Your task to perform on an android device: turn on notifications settings in the gmail app Image 0: 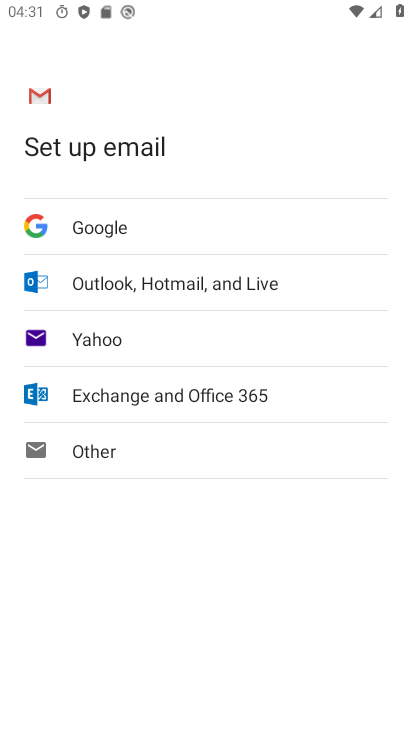
Step 0: press home button
Your task to perform on an android device: turn on notifications settings in the gmail app Image 1: 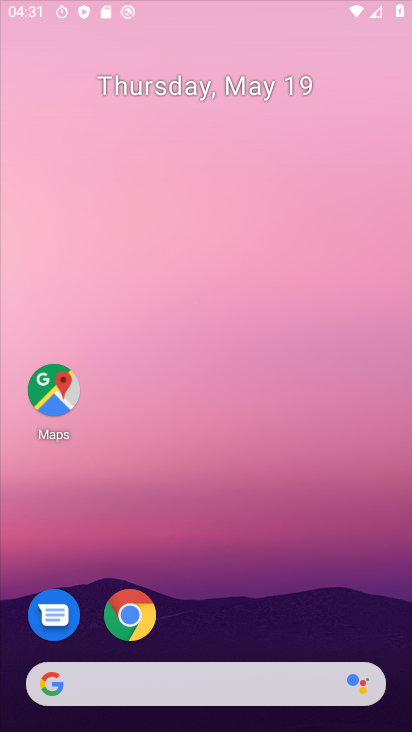
Step 1: drag from (286, 633) to (329, 6)
Your task to perform on an android device: turn on notifications settings in the gmail app Image 2: 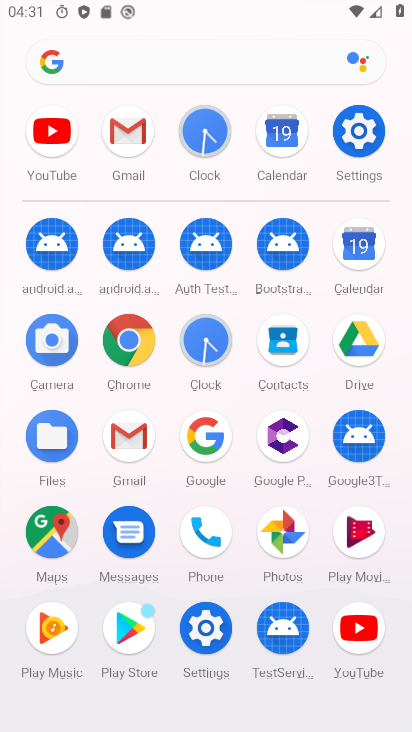
Step 2: click (127, 128)
Your task to perform on an android device: turn on notifications settings in the gmail app Image 3: 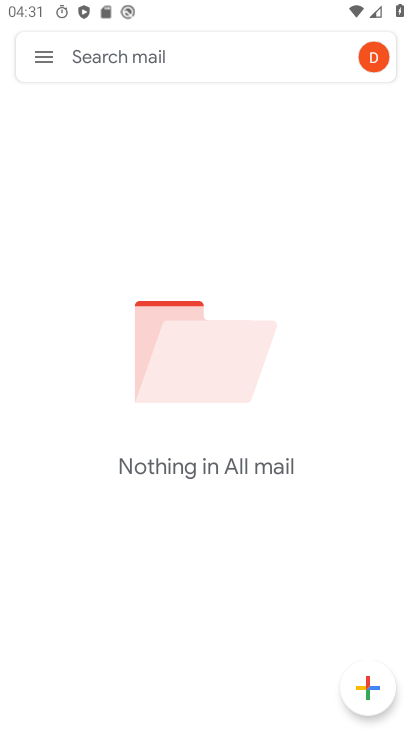
Step 3: click (34, 58)
Your task to perform on an android device: turn on notifications settings in the gmail app Image 4: 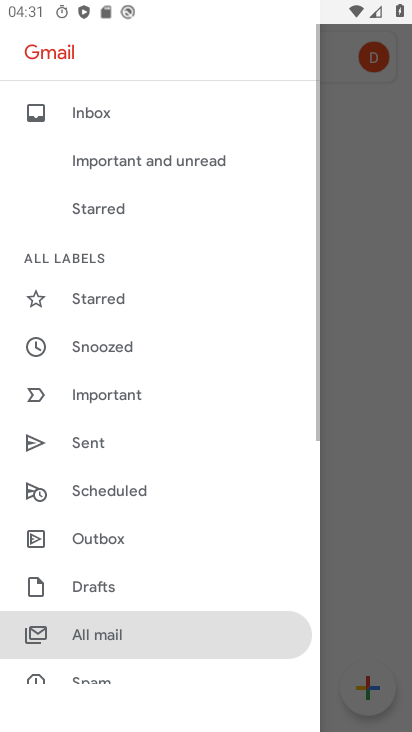
Step 4: drag from (162, 582) to (170, 222)
Your task to perform on an android device: turn on notifications settings in the gmail app Image 5: 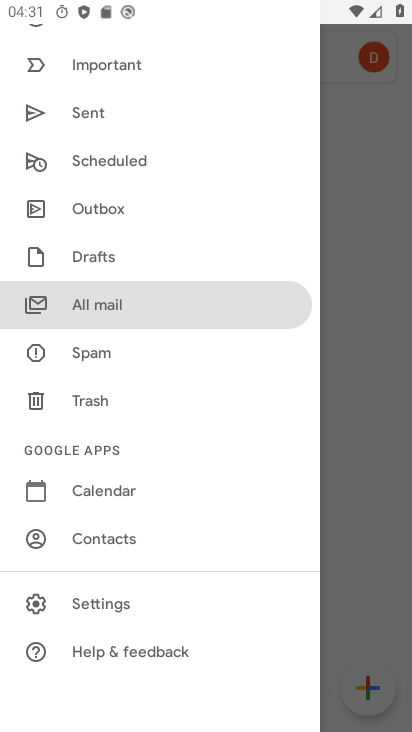
Step 5: click (77, 602)
Your task to perform on an android device: turn on notifications settings in the gmail app Image 6: 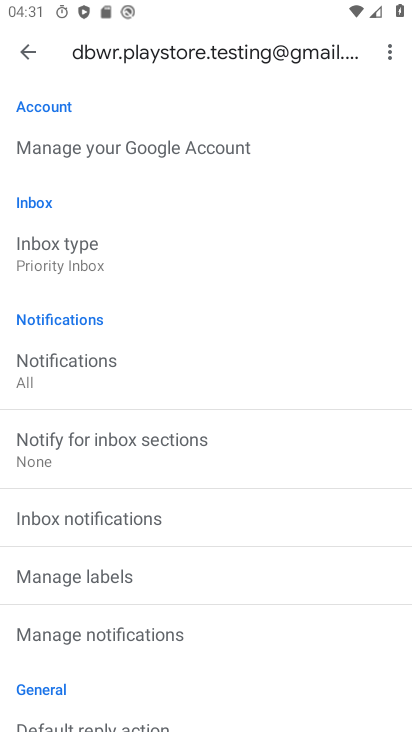
Step 6: click (24, 53)
Your task to perform on an android device: turn on notifications settings in the gmail app Image 7: 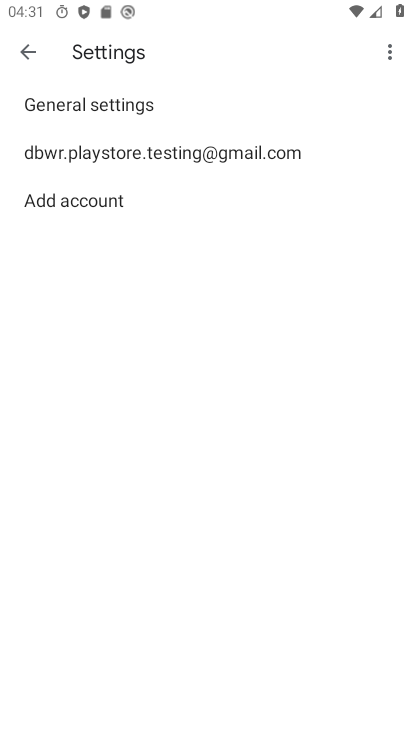
Step 7: click (37, 110)
Your task to perform on an android device: turn on notifications settings in the gmail app Image 8: 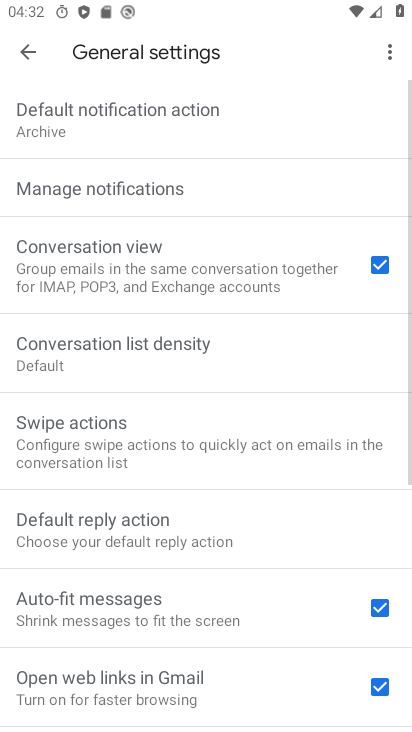
Step 8: click (55, 189)
Your task to perform on an android device: turn on notifications settings in the gmail app Image 9: 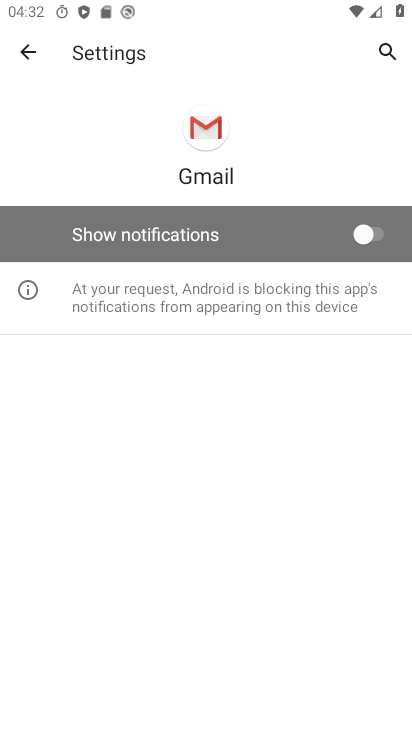
Step 9: click (370, 240)
Your task to perform on an android device: turn on notifications settings in the gmail app Image 10: 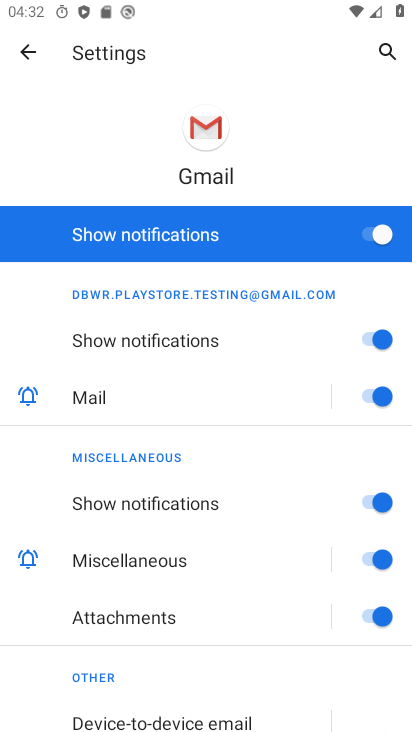
Step 10: task complete